Your task to perform on an android device: When is my next meeting? Image 0: 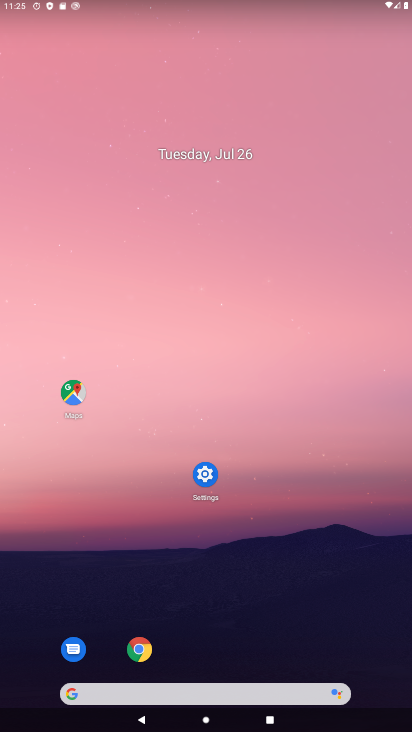
Step 0: drag from (206, 539) to (214, 383)
Your task to perform on an android device: When is my next meeting? Image 1: 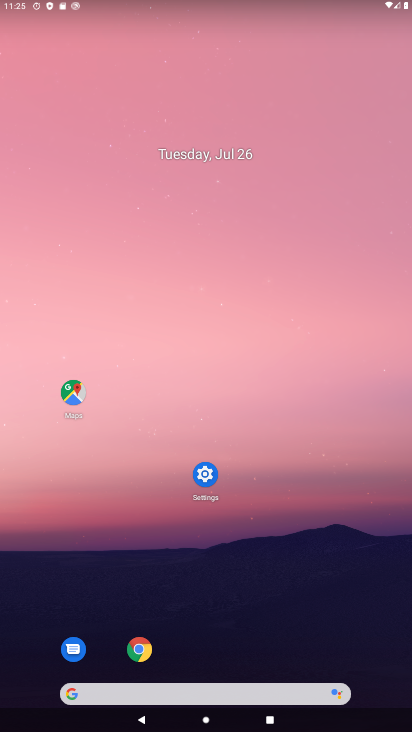
Step 1: drag from (203, 580) to (103, 207)
Your task to perform on an android device: When is my next meeting? Image 2: 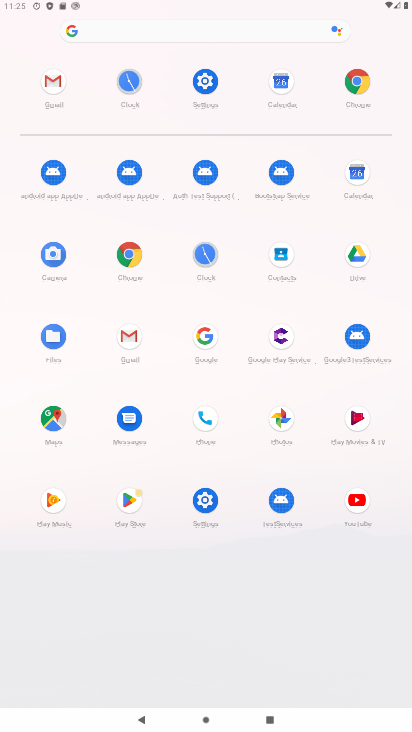
Step 2: click (364, 161)
Your task to perform on an android device: When is my next meeting? Image 3: 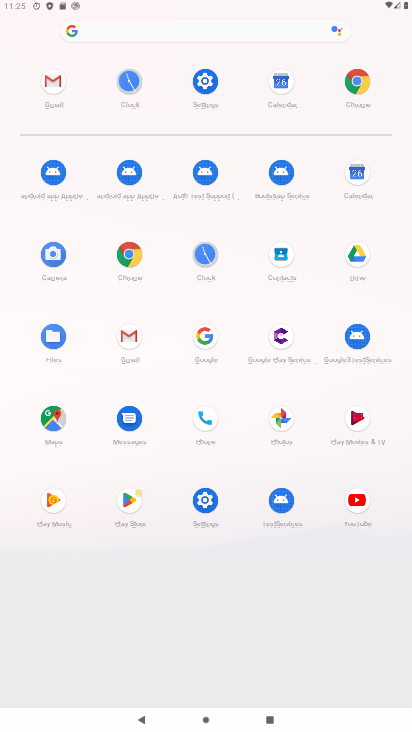
Step 3: click (365, 163)
Your task to perform on an android device: When is my next meeting? Image 4: 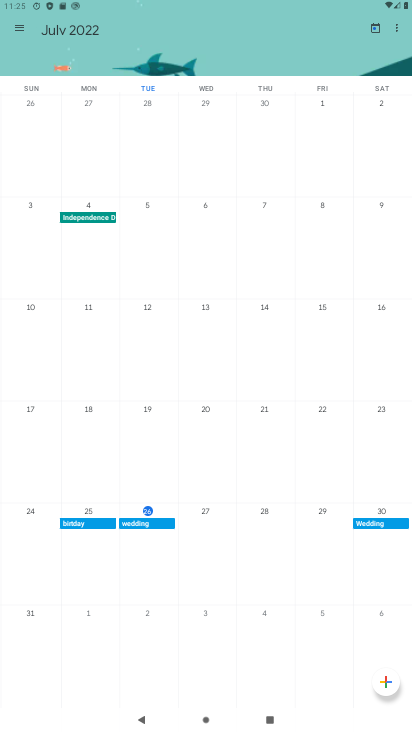
Step 4: task complete